Your task to perform on an android device: Open Youtube and go to the subscriptions tab Image 0: 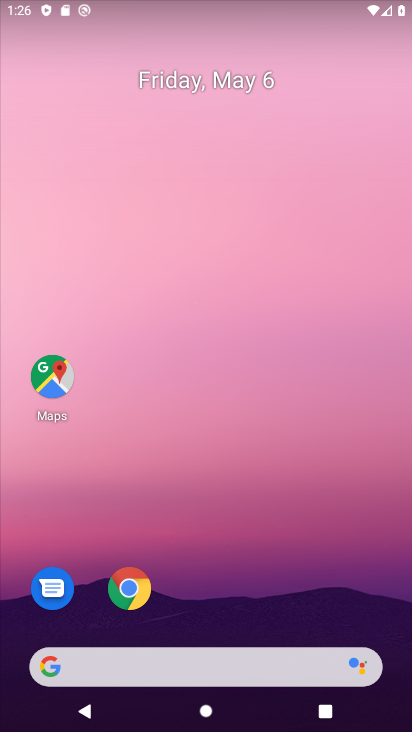
Step 0: drag from (363, 608) to (337, 151)
Your task to perform on an android device: Open Youtube and go to the subscriptions tab Image 1: 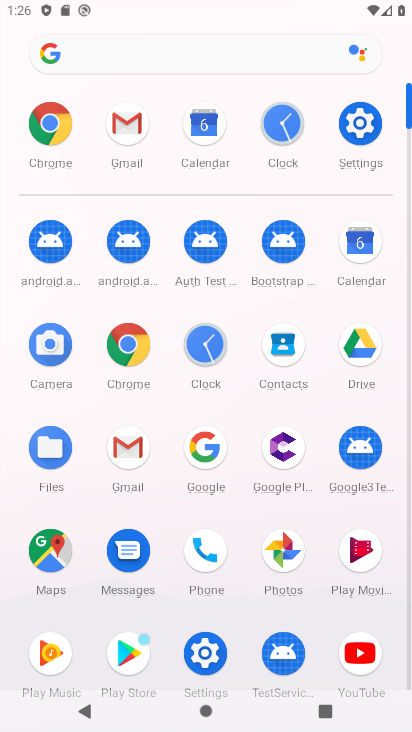
Step 1: click (357, 649)
Your task to perform on an android device: Open Youtube and go to the subscriptions tab Image 2: 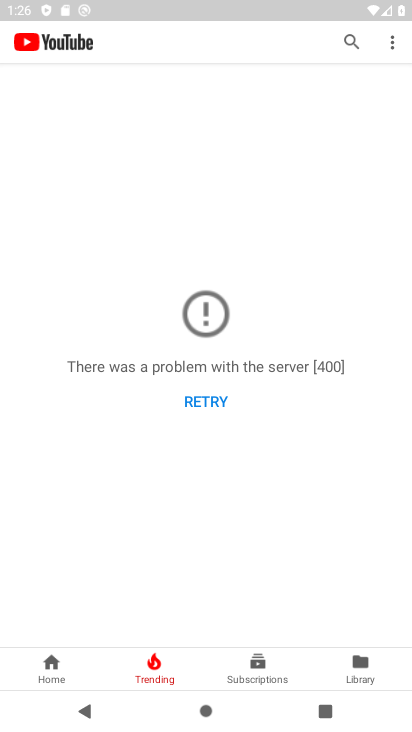
Step 2: click (252, 674)
Your task to perform on an android device: Open Youtube and go to the subscriptions tab Image 3: 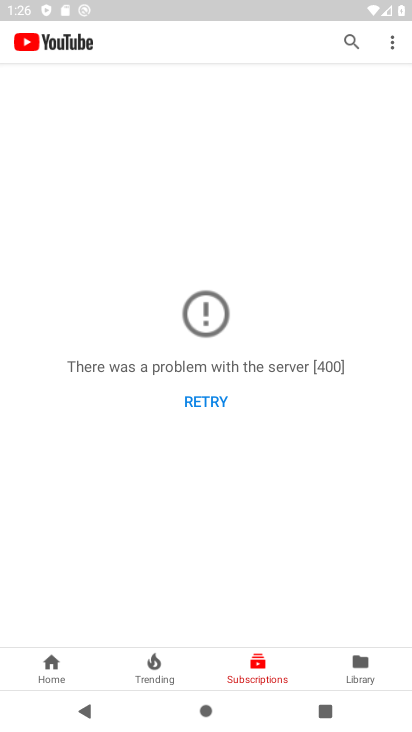
Step 3: task complete